Your task to perform on an android device: create a new album in the google photos Image 0: 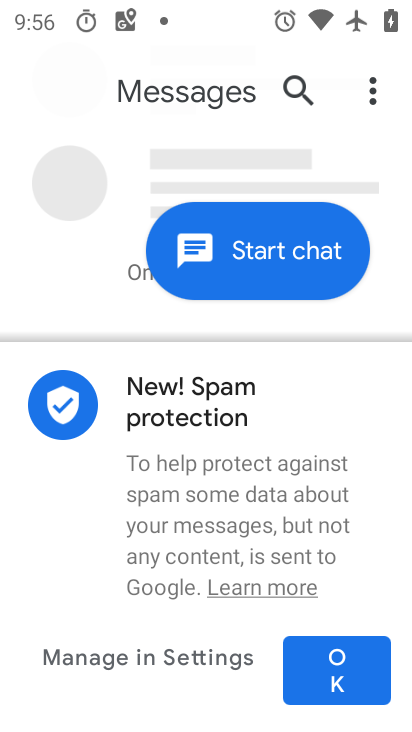
Step 0: press home button
Your task to perform on an android device: create a new album in the google photos Image 1: 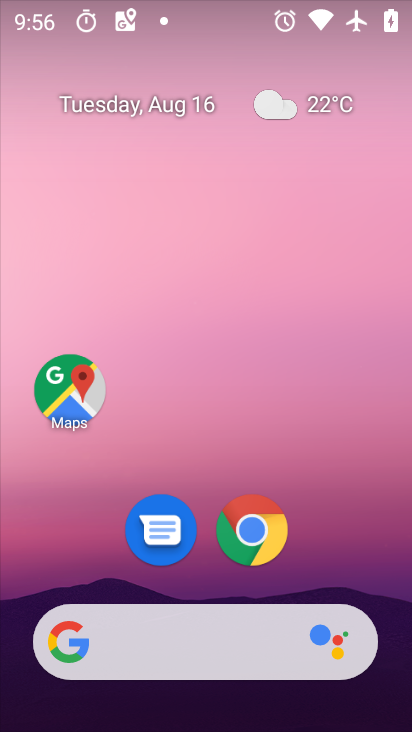
Step 1: drag from (368, 552) to (293, 64)
Your task to perform on an android device: create a new album in the google photos Image 2: 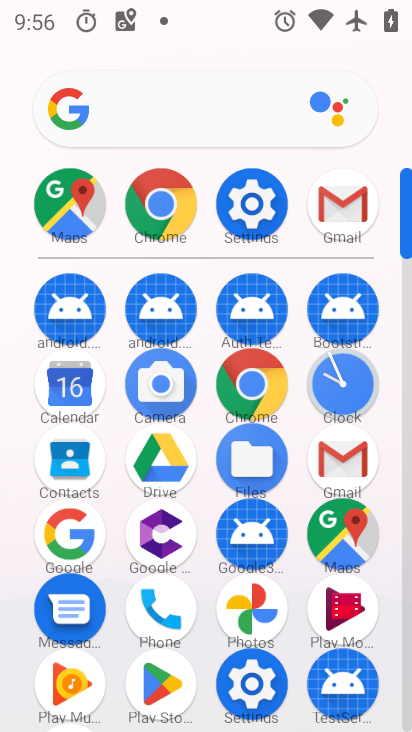
Step 2: click (258, 586)
Your task to perform on an android device: create a new album in the google photos Image 3: 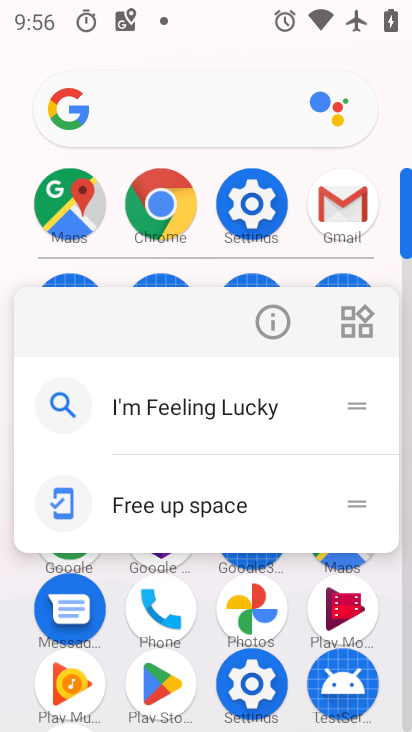
Step 3: click (248, 592)
Your task to perform on an android device: create a new album in the google photos Image 4: 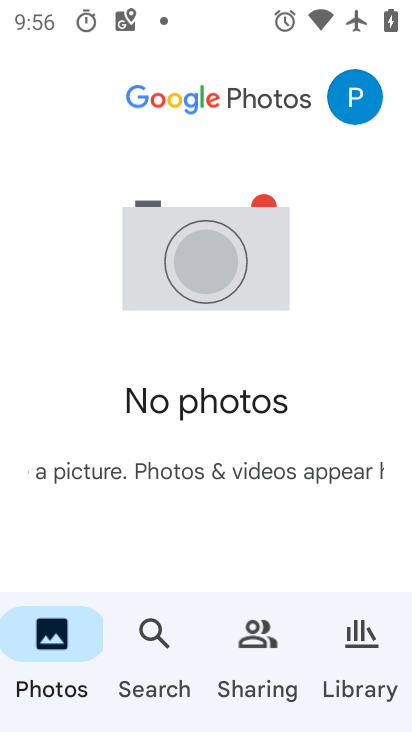
Step 4: click (357, 635)
Your task to perform on an android device: create a new album in the google photos Image 5: 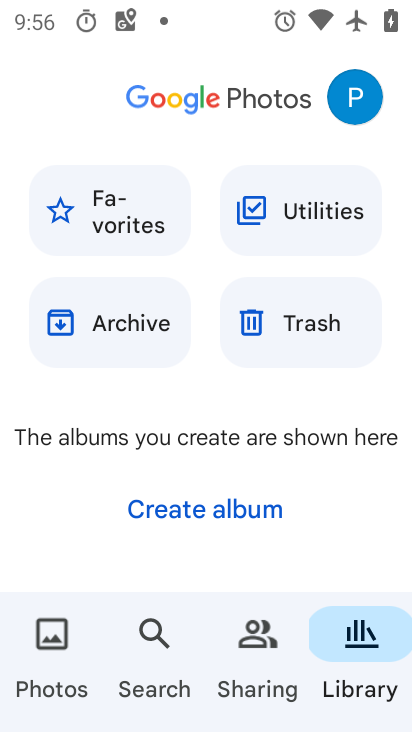
Step 5: click (249, 520)
Your task to perform on an android device: create a new album in the google photos Image 6: 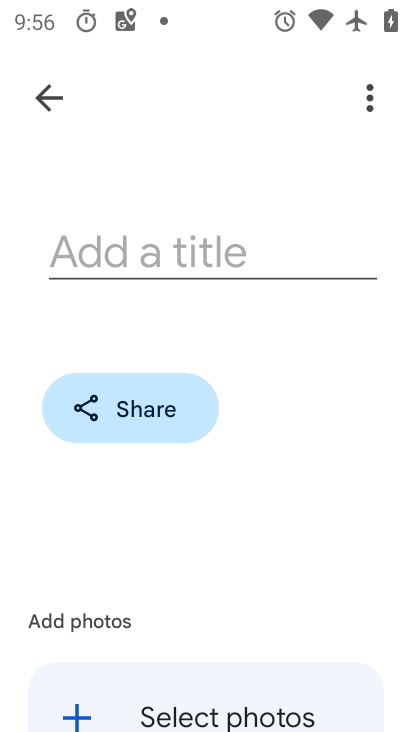
Step 6: click (258, 280)
Your task to perform on an android device: create a new album in the google photos Image 7: 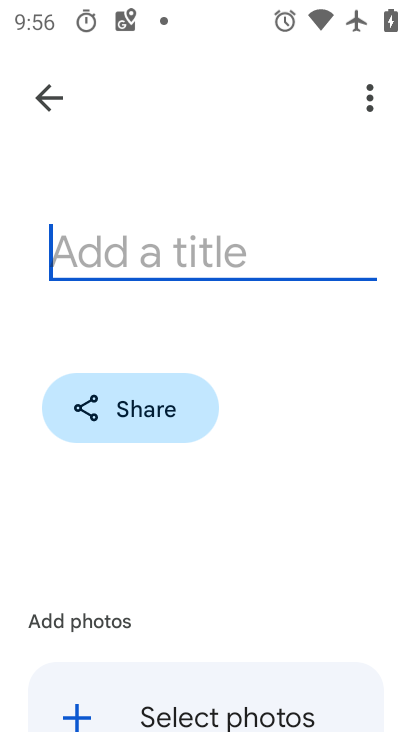
Step 7: click (281, 259)
Your task to perform on an android device: create a new album in the google photos Image 8: 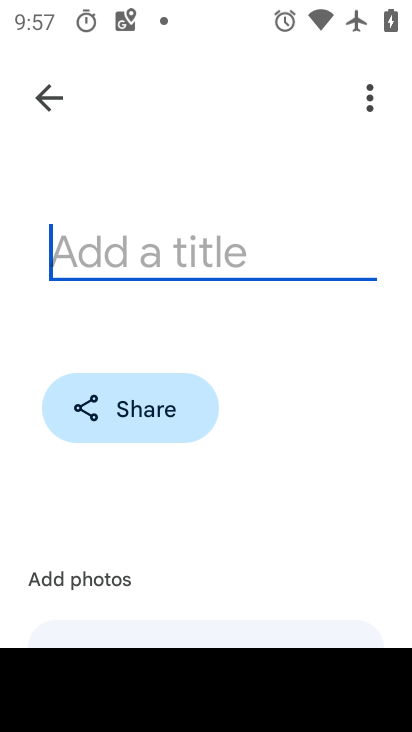
Step 8: type "popatlal"
Your task to perform on an android device: create a new album in the google photos Image 9: 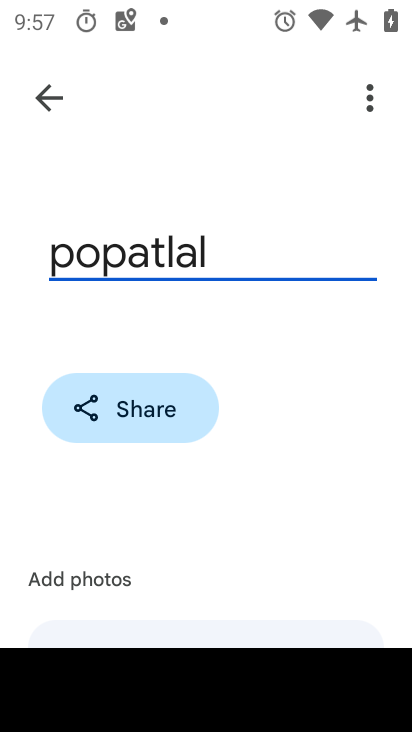
Step 9: drag from (342, 576) to (383, 53)
Your task to perform on an android device: create a new album in the google photos Image 10: 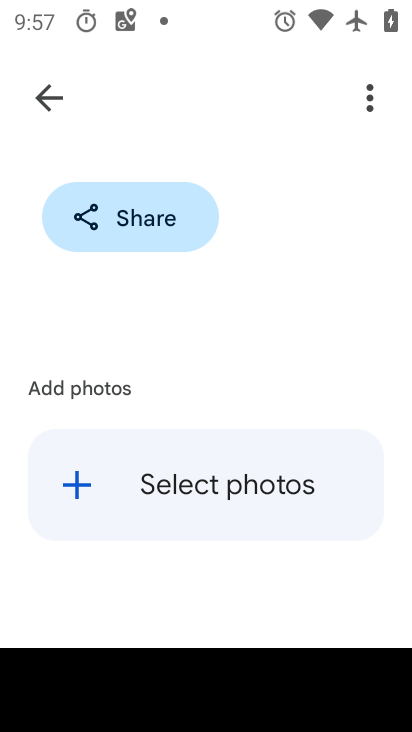
Step 10: drag from (258, 376) to (374, 0)
Your task to perform on an android device: create a new album in the google photos Image 11: 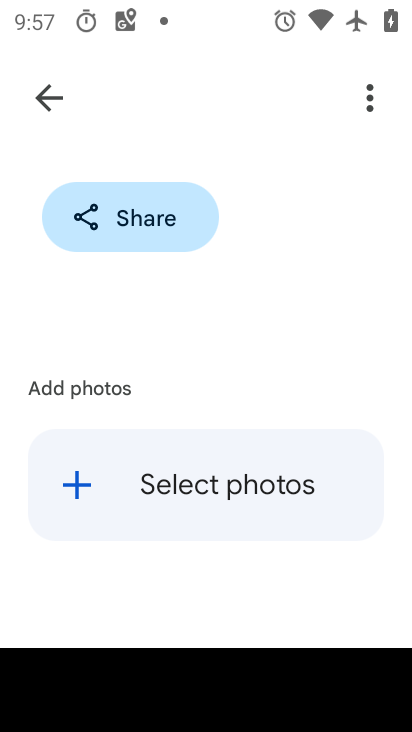
Step 11: drag from (274, 618) to (348, 78)
Your task to perform on an android device: create a new album in the google photos Image 12: 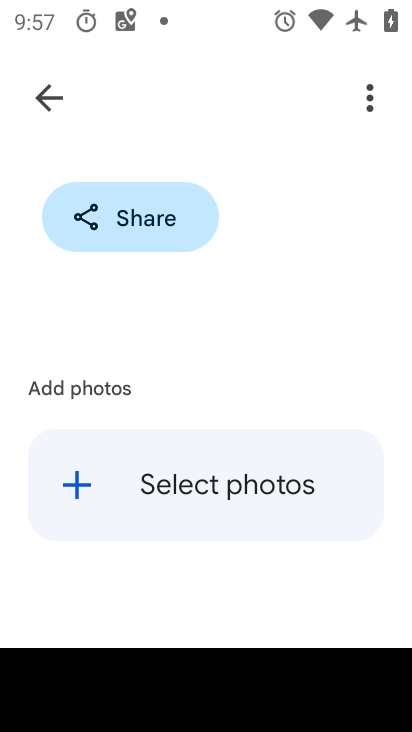
Step 12: drag from (227, 591) to (357, 87)
Your task to perform on an android device: create a new album in the google photos Image 13: 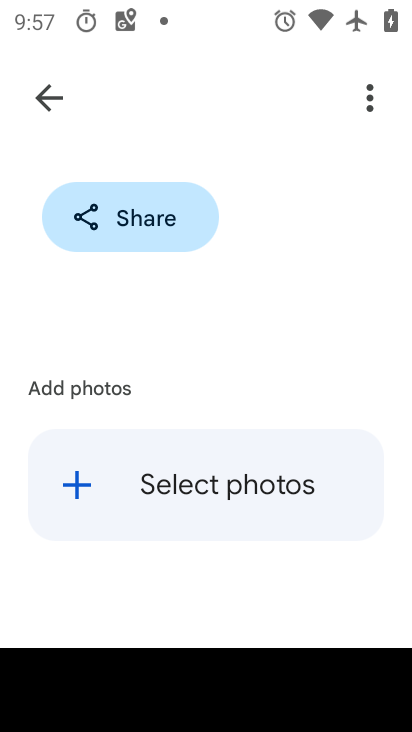
Step 13: click (366, 91)
Your task to perform on an android device: create a new album in the google photos Image 14: 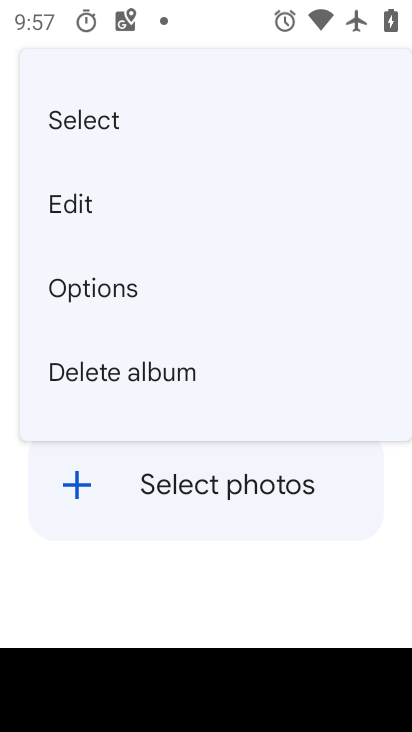
Step 14: task complete